Your task to perform on an android device: Search for sushi restaurants on Maps Image 0: 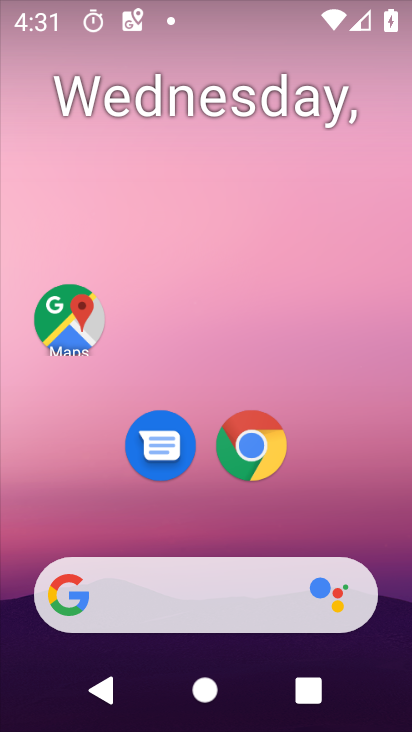
Step 0: click (66, 322)
Your task to perform on an android device: Search for sushi restaurants on Maps Image 1: 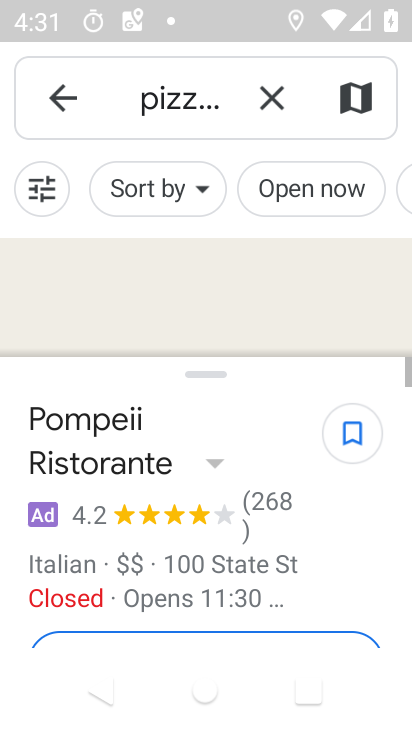
Step 1: click (251, 86)
Your task to perform on an android device: Search for sushi restaurants on Maps Image 2: 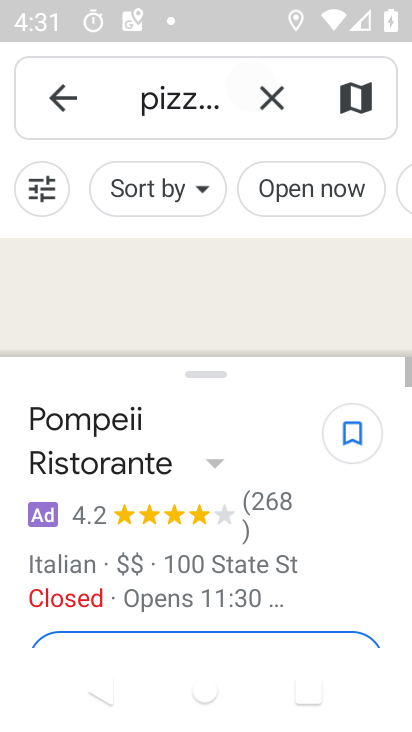
Step 2: click (278, 97)
Your task to perform on an android device: Search for sushi restaurants on Maps Image 3: 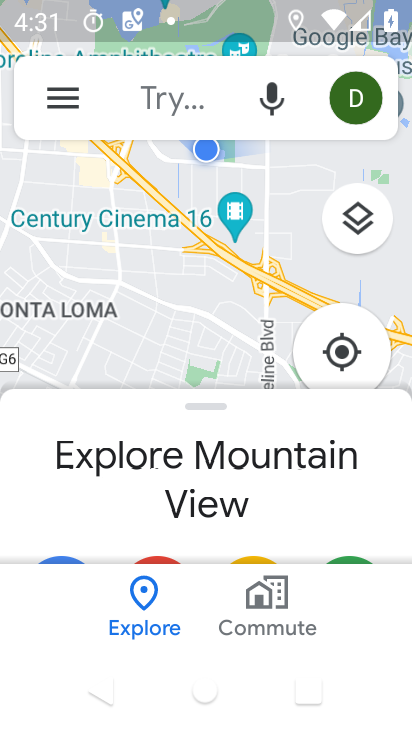
Step 3: click (165, 92)
Your task to perform on an android device: Search for sushi restaurants on Maps Image 4: 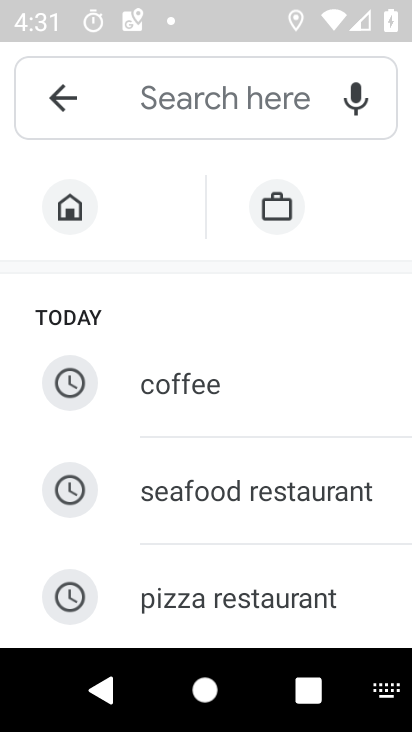
Step 4: drag from (249, 563) to (295, 49)
Your task to perform on an android device: Search for sushi restaurants on Maps Image 5: 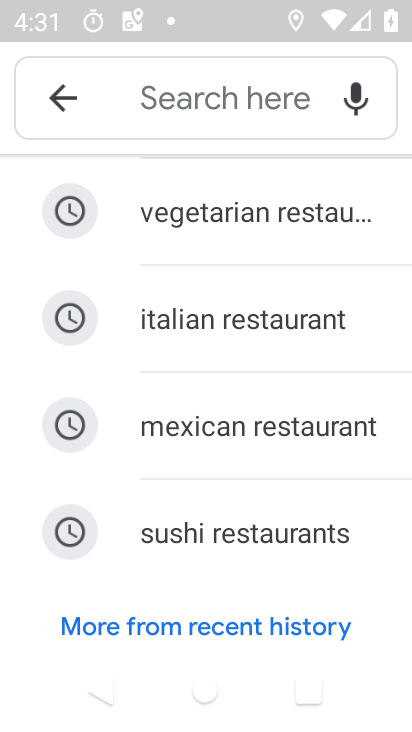
Step 5: click (200, 536)
Your task to perform on an android device: Search for sushi restaurants on Maps Image 6: 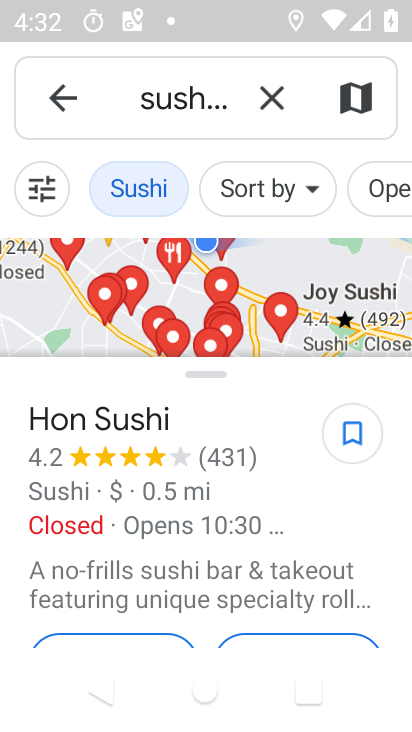
Step 6: task complete